Your task to perform on an android device: Go to location settings Image 0: 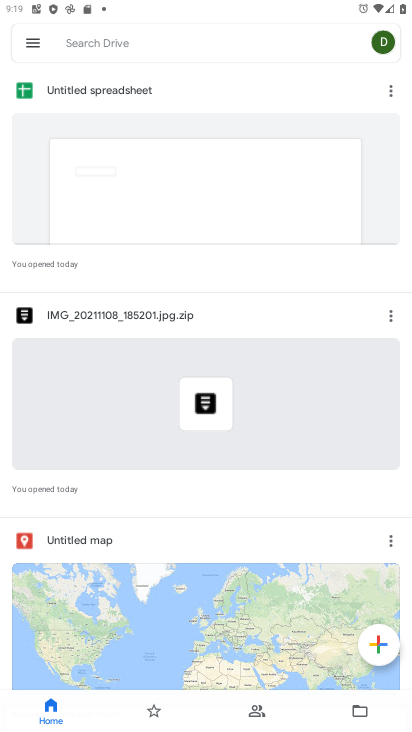
Step 0: press home button
Your task to perform on an android device: Go to location settings Image 1: 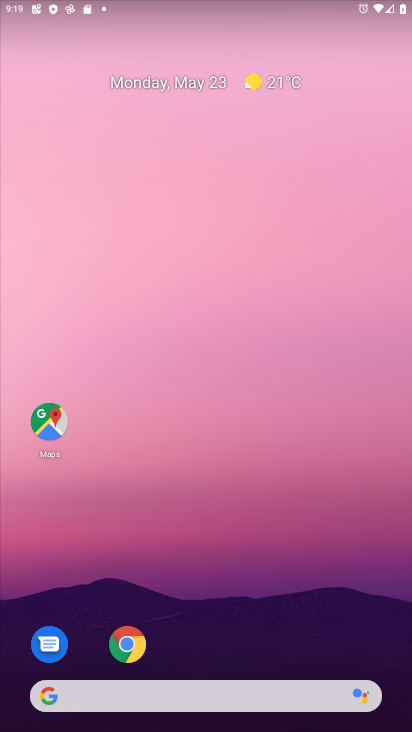
Step 1: drag from (223, 720) to (316, 6)
Your task to perform on an android device: Go to location settings Image 2: 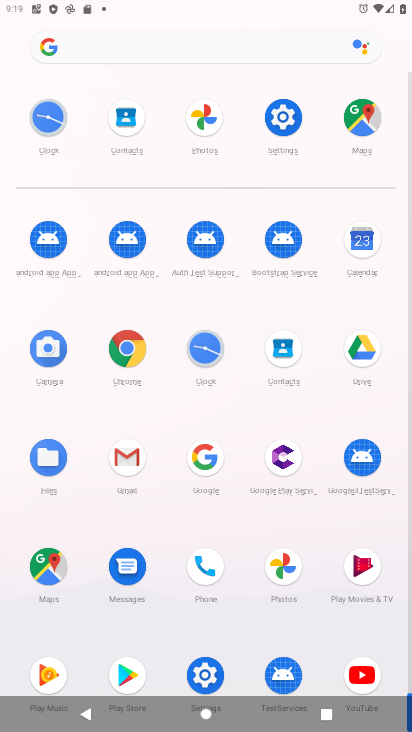
Step 2: click (289, 117)
Your task to perform on an android device: Go to location settings Image 3: 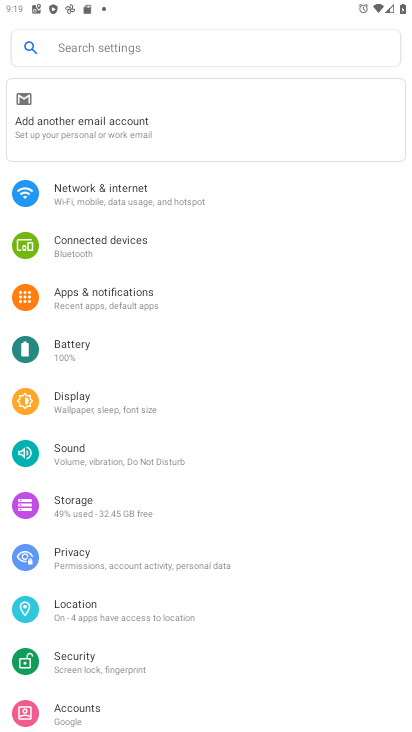
Step 3: click (126, 599)
Your task to perform on an android device: Go to location settings Image 4: 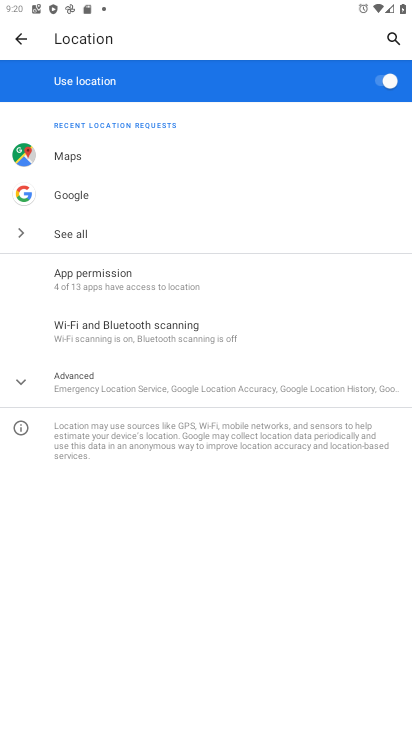
Step 4: task complete